Your task to perform on an android device: What's the weather going to be this weekend? Image 0: 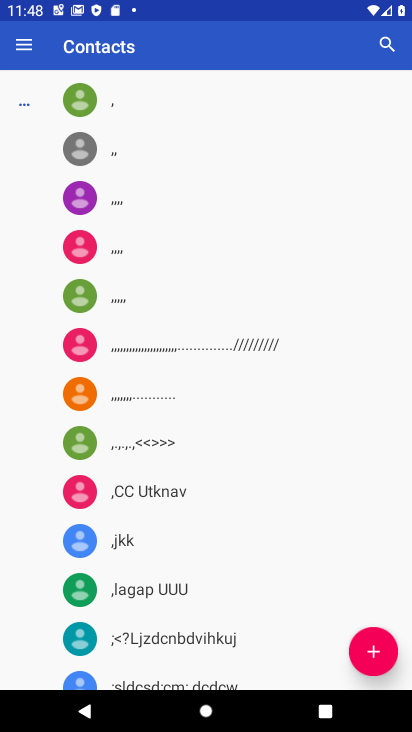
Step 0: press home button
Your task to perform on an android device: What's the weather going to be this weekend? Image 1: 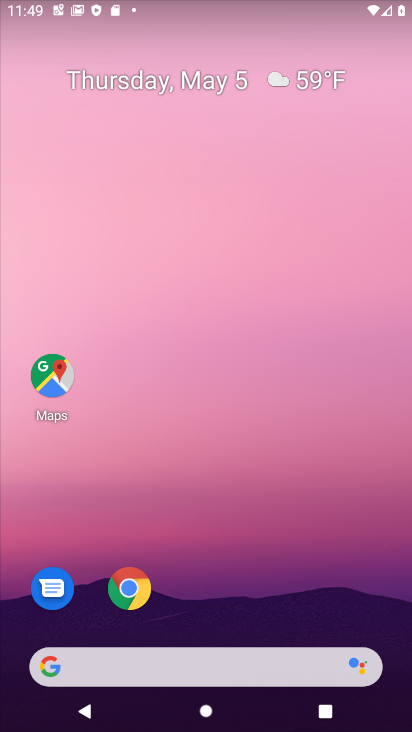
Step 1: click (322, 76)
Your task to perform on an android device: What's the weather going to be this weekend? Image 2: 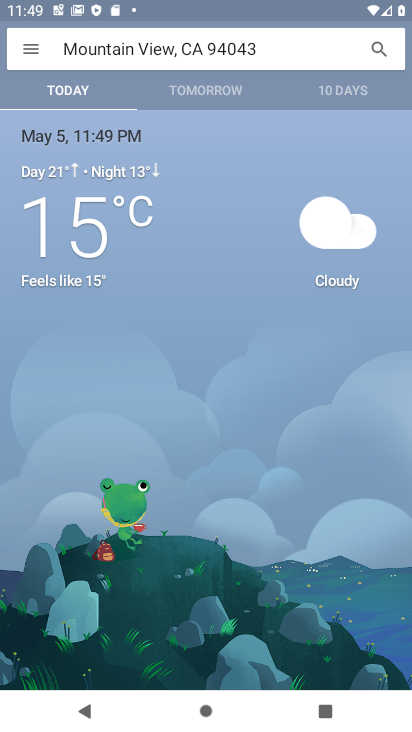
Step 2: click (332, 93)
Your task to perform on an android device: What's the weather going to be this weekend? Image 3: 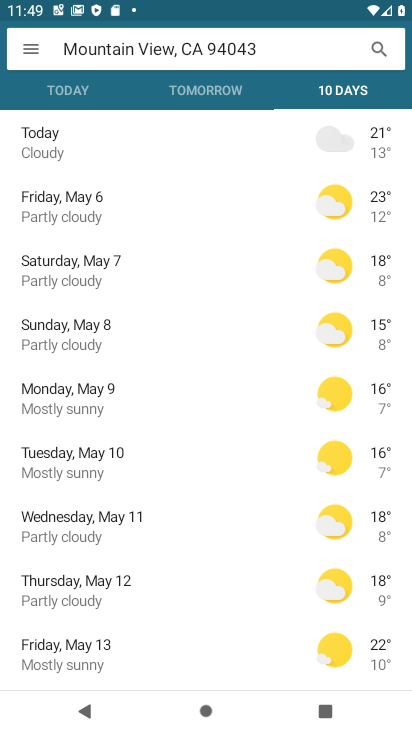
Step 3: click (86, 273)
Your task to perform on an android device: What's the weather going to be this weekend? Image 4: 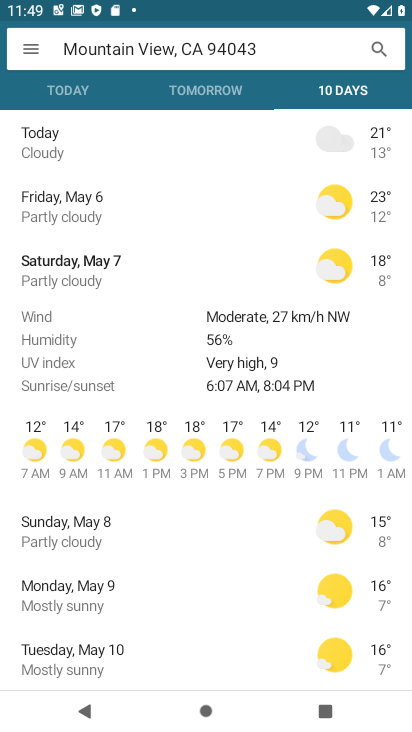
Step 4: task complete